Your task to perform on an android device: Open Google Maps and go to "Timeline" Image 0: 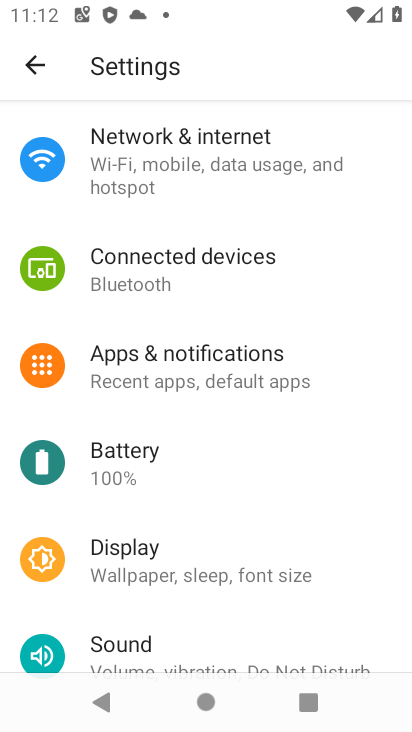
Step 0: press home button
Your task to perform on an android device: Open Google Maps and go to "Timeline" Image 1: 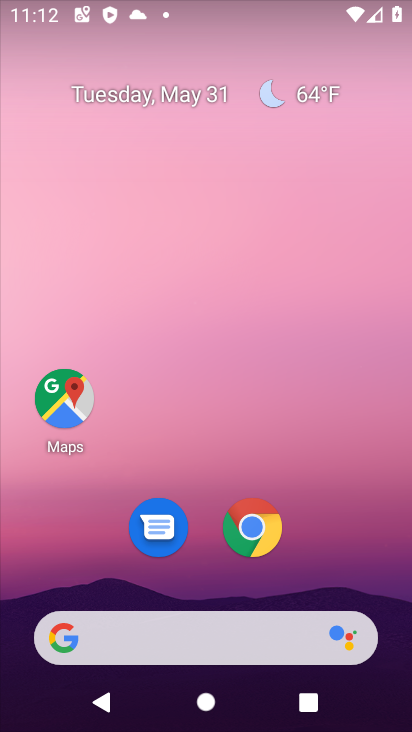
Step 1: click (53, 403)
Your task to perform on an android device: Open Google Maps and go to "Timeline" Image 2: 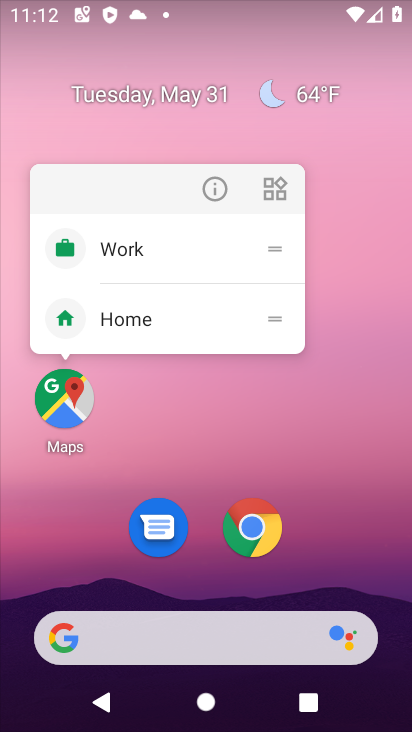
Step 2: click (53, 404)
Your task to perform on an android device: Open Google Maps and go to "Timeline" Image 3: 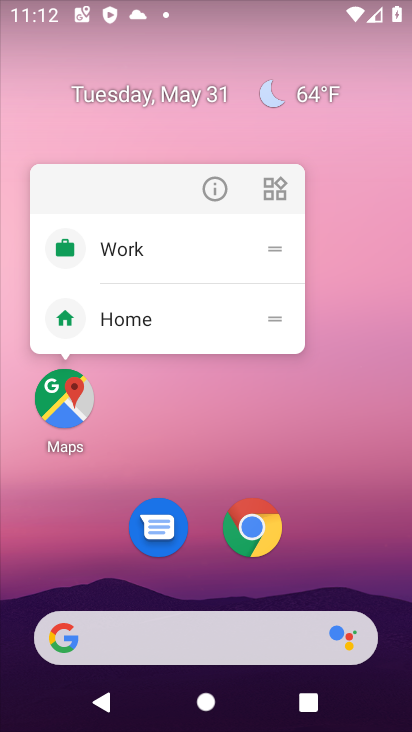
Step 3: click (53, 404)
Your task to perform on an android device: Open Google Maps and go to "Timeline" Image 4: 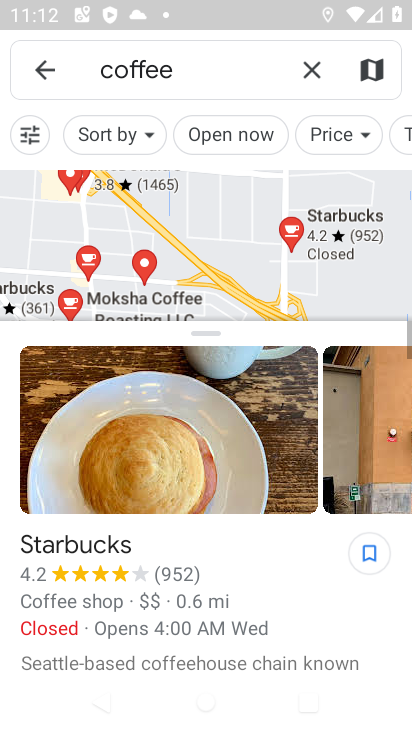
Step 4: click (34, 65)
Your task to perform on an android device: Open Google Maps and go to "Timeline" Image 5: 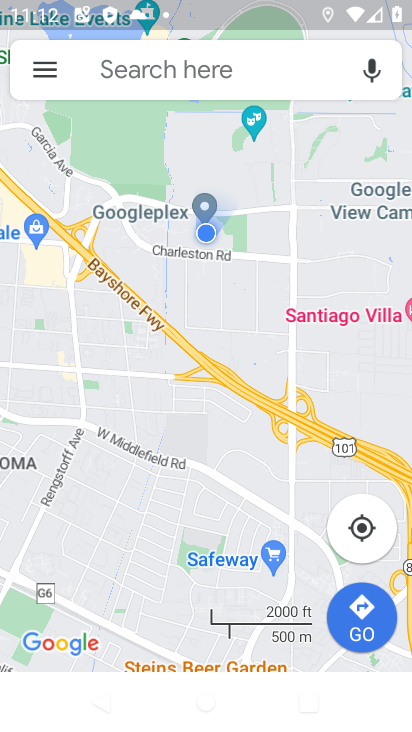
Step 5: click (34, 65)
Your task to perform on an android device: Open Google Maps and go to "Timeline" Image 6: 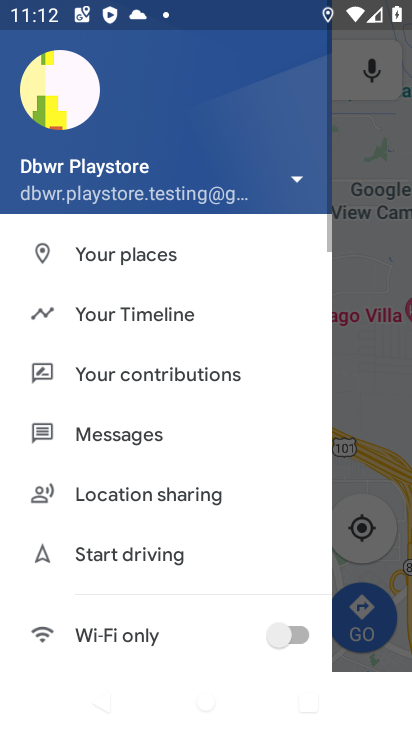
Step 6: click (101, 312)
Your task to perform on an android device: Open Google Maps and go to "Timeline" Image 7: 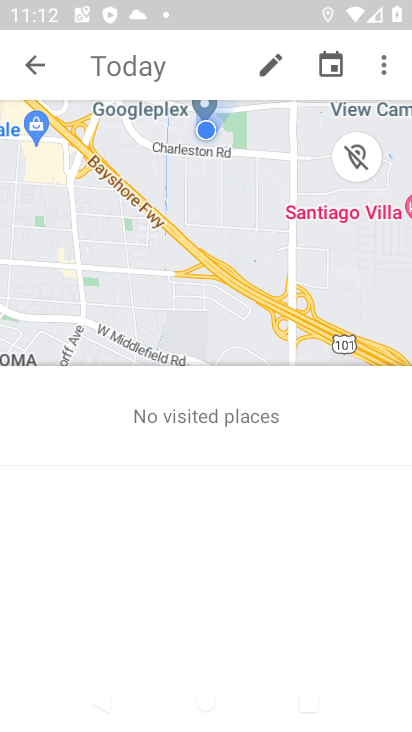
Step 7: task complete